Your task to perform on an android device: toggle sleep mode Image 0: 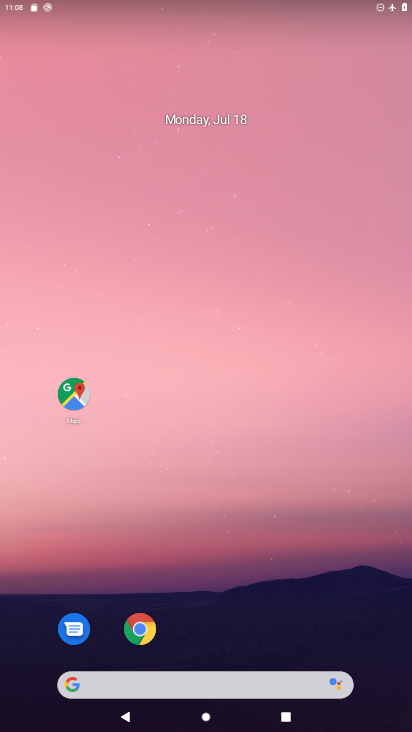
Step 0: drag from (322, 570) to (280, 65)
Your task to perform on an android device: toggle sleep mode Image 1: 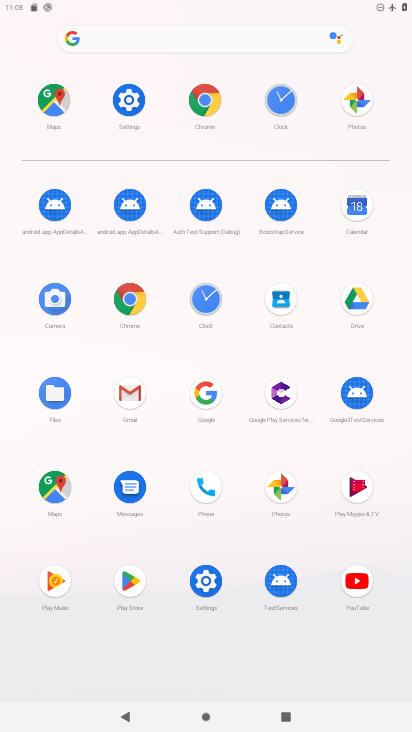
Step 1: click (126, 95)
Your task to perform on an android device: toggle sleep mode Image 2: 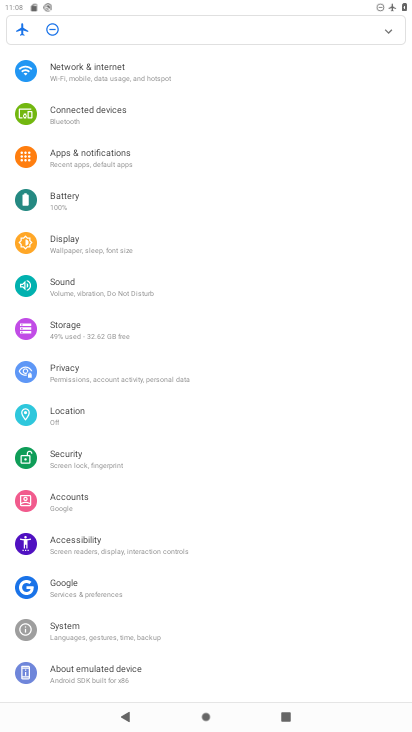
Step 2: click (100, 251)
Your task to perform on an android device: toggle sleep mode Image 3: 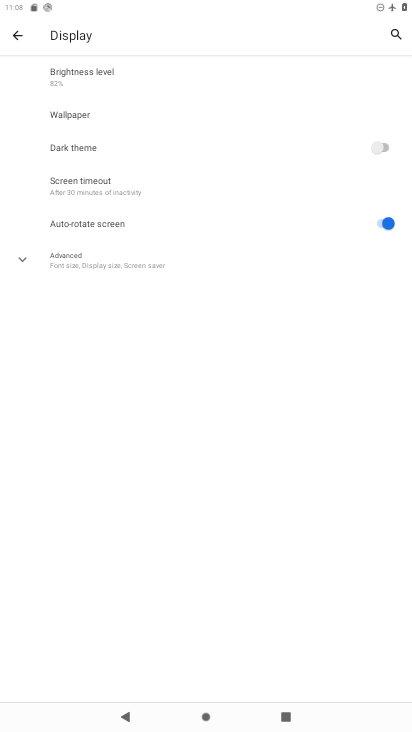
Step 3: click (95, 177)
Your task to perform on an android device: toggle sleep mode Image 4: 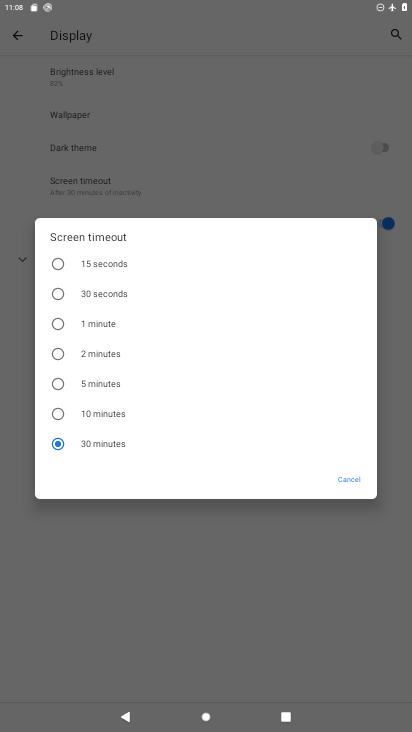
Step 4: click (71, 415)
Your task to perform on an android device: toggle sleep mode Image 5: 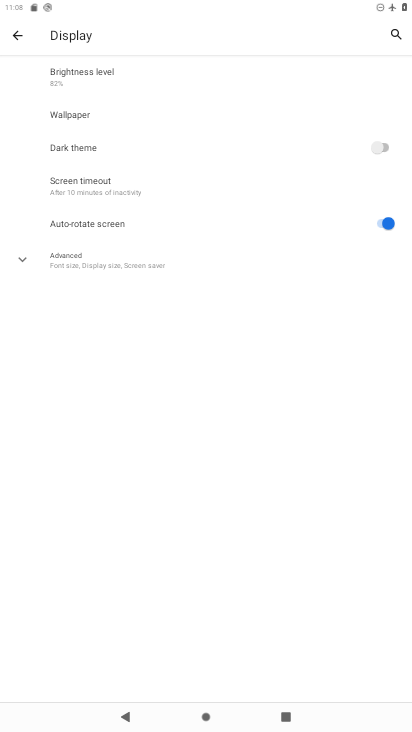
Step 5: task complete